Your task to perform on an android device: Search for pizza restaurants on Maps Image 0: 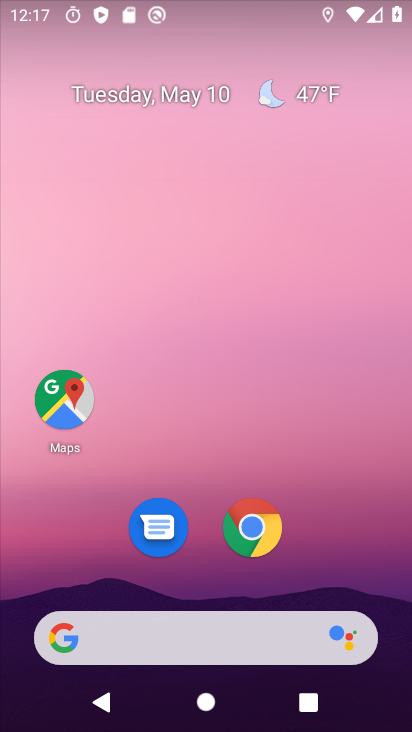
Step 0: drag from (366, 542) to (334, 81)
Your task to perform on an android device: Search for pizza restaurants on Maps Image 1: 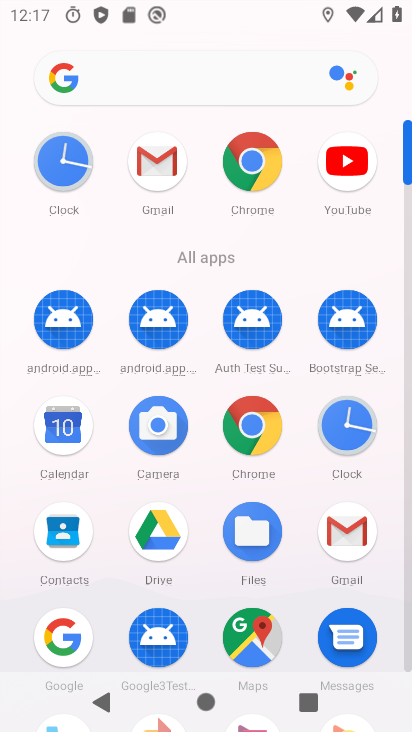
Step 1: click (252, 643)
Your task to perform on an android device: Search for pizza restaurants on Maps Image 2: 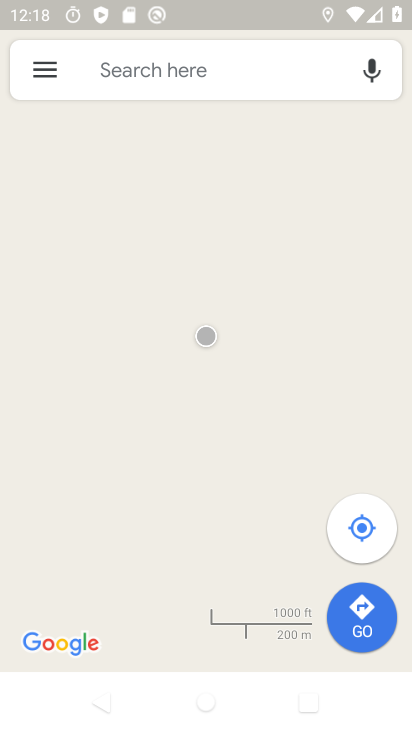
Step 2: click (156, 80)
Your task to perform on an android device: Search for pizza restaurants on Maps Image 3: 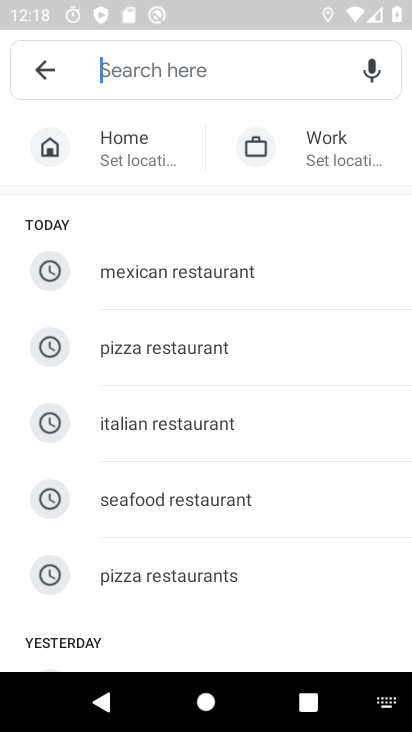
Step 3: type "pizza restaurants "
Your task to perform on an android device: Search for pizza restaurants on Maps Image 4: 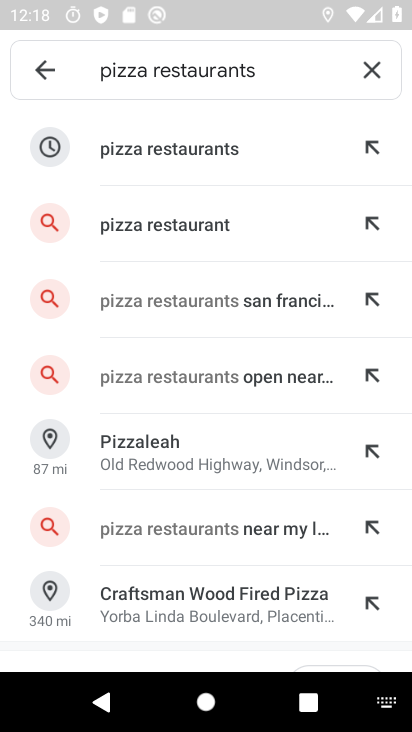
Step 4: click (251, 155)
Your task to perform on an android device: Search for pizza restaurants on Maps Image 5: 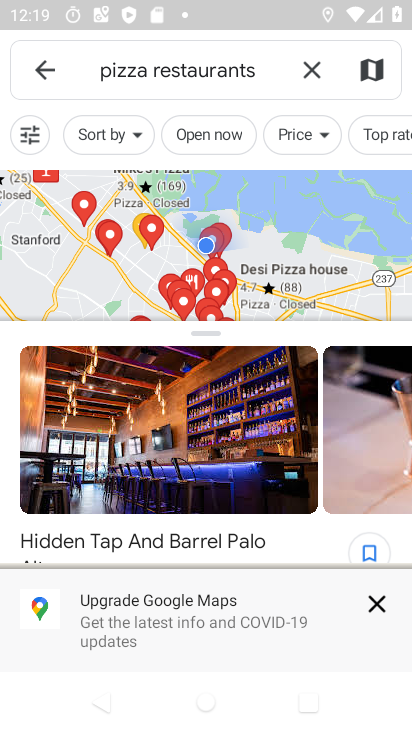
Step 5: task complete